Your task to perform on an android device: Search for seafood restaurants on Google Maps Image 0: 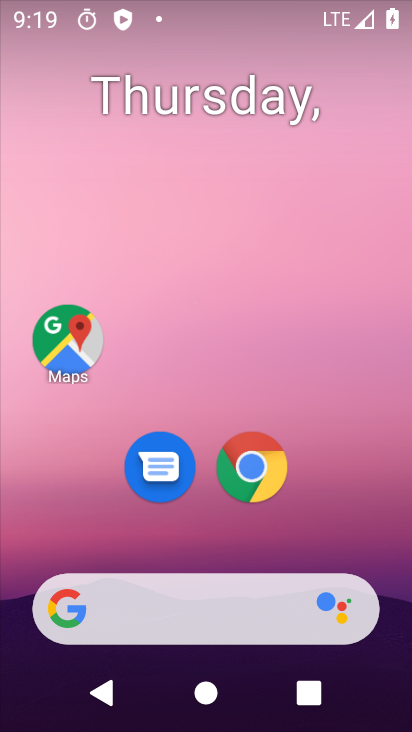
Step 0: drag from (357, 441) to (342, 1)
Your task to perform on an android device: Search for seafood restaurants on Google Maps Image 1: 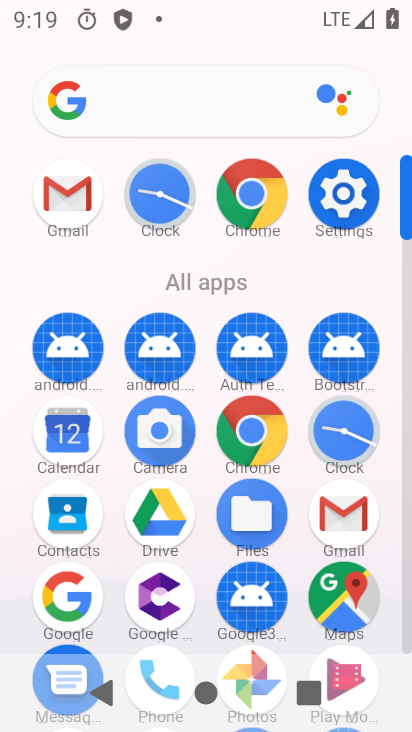
Step 1: click (339, 607)
Your task to perform on an android device: Search for seafood restaurants on Google Maps Image 2: 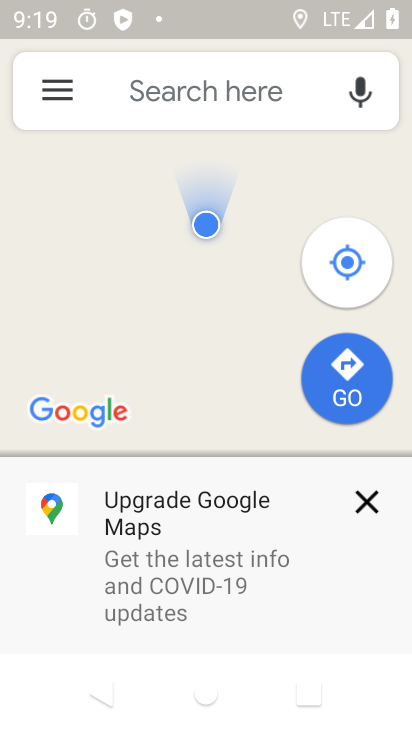
Step 2: click (232, 89)
Your task to perform on an android device: Search for seafood restaurants on Google Maps Image 3: 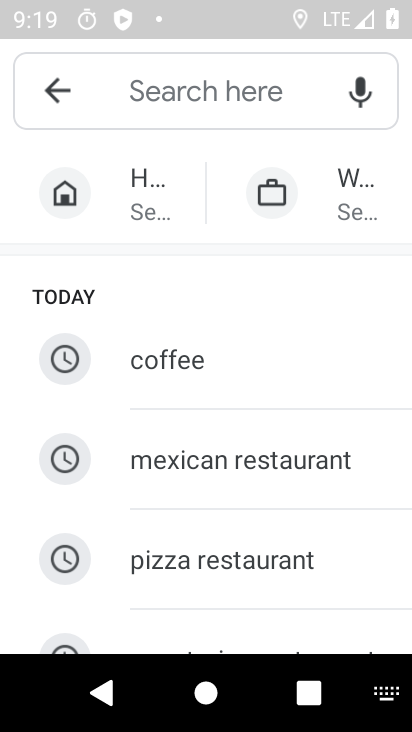
Step 3: type "seafood restaurants"
Your task to perform on an android device: Search for seafood restaurants on Google Maps Image 4: 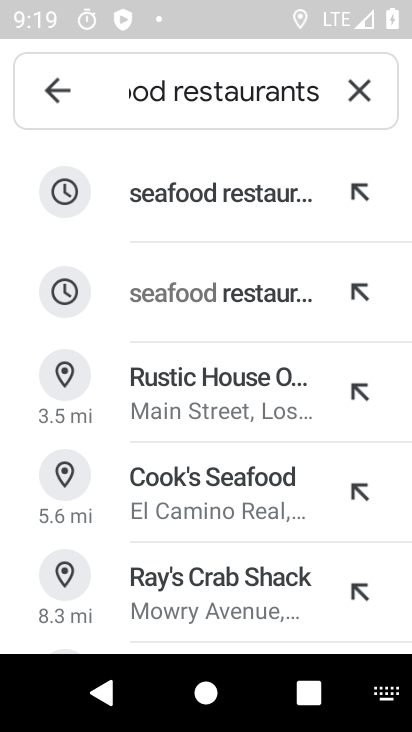
Step 4: press enter
Your task to perform on an android device: Search for seafood restaurants on Google Maps Image 5: 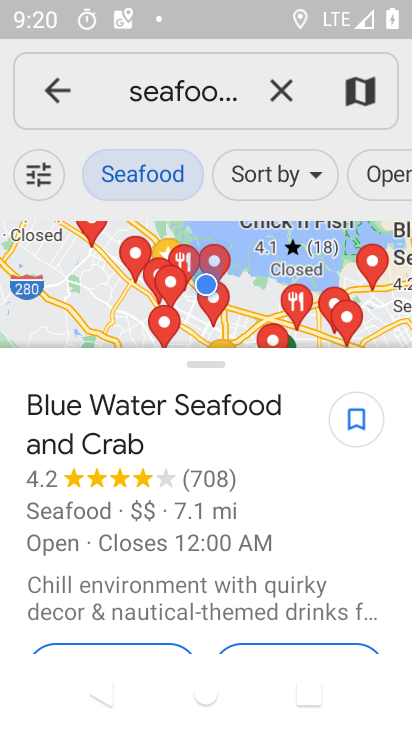
Step 5: task complete